Your task to perform on an android device: Open Google Chrome Image 0: 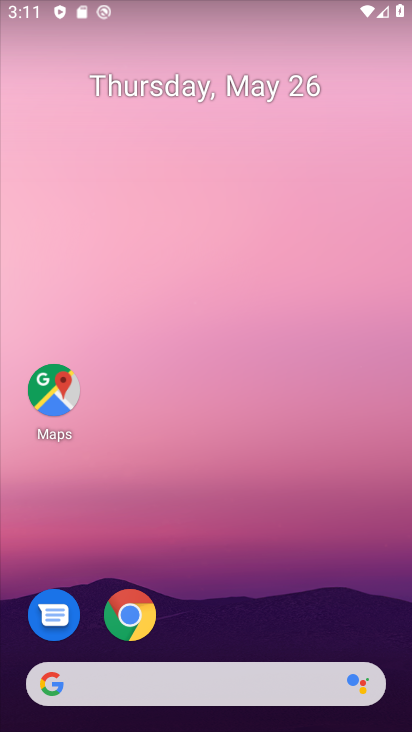
Step 0: click (142, 613)
Your task to perform on an android device: Open Google Chrome Image 1: 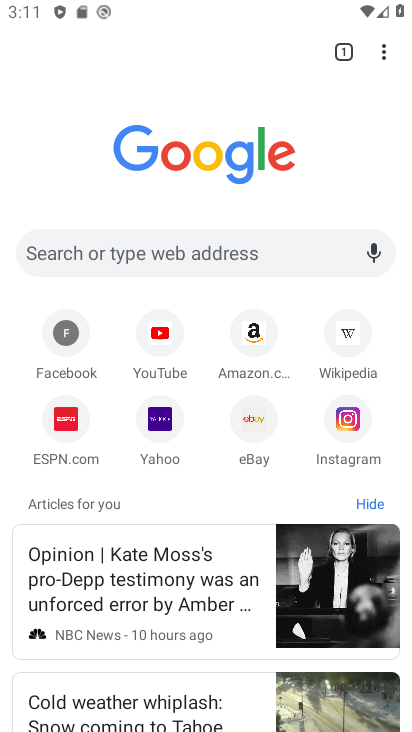
Step 1: task complete